Your task to perform on an android device: Do I have any events today? Image 0: 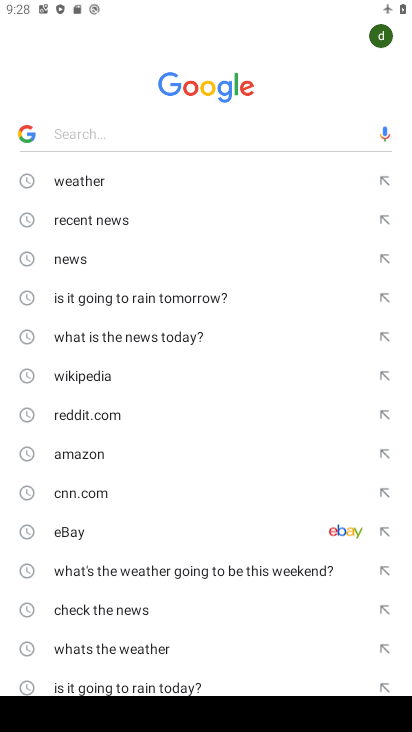
Step 0: press back button
Your task to perform on an android device: Do I have any events today? Image 1: 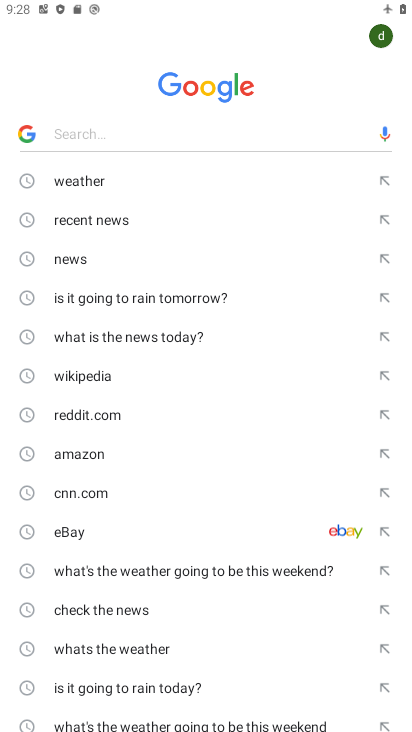
Step 1: press home button
Your task to perform on an android device: Do I have any events today? Image 2: 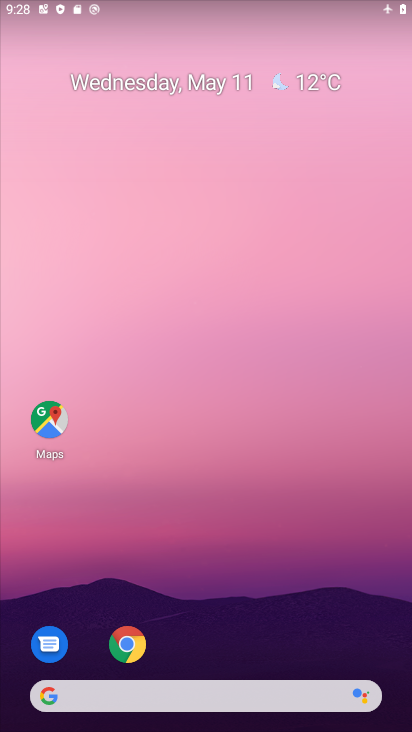
Step 2: click (224, 175)
Your task to perform on an android device: Do I have any events today? Image 3: 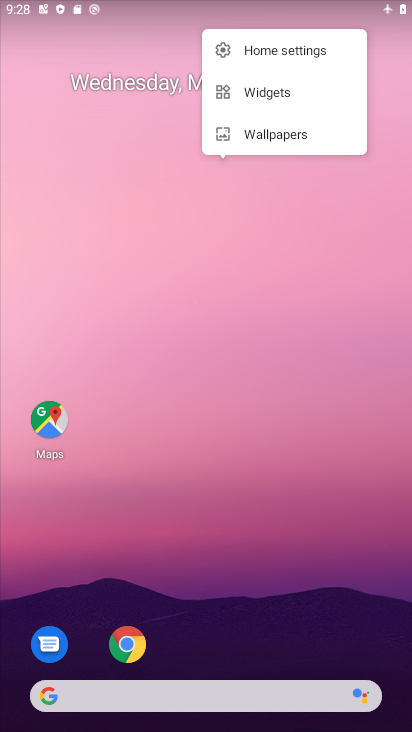
Step 3: drag from (228, 638) to (135, 181)
Your task to perform on an android device: Do I have any events today? Image 4: 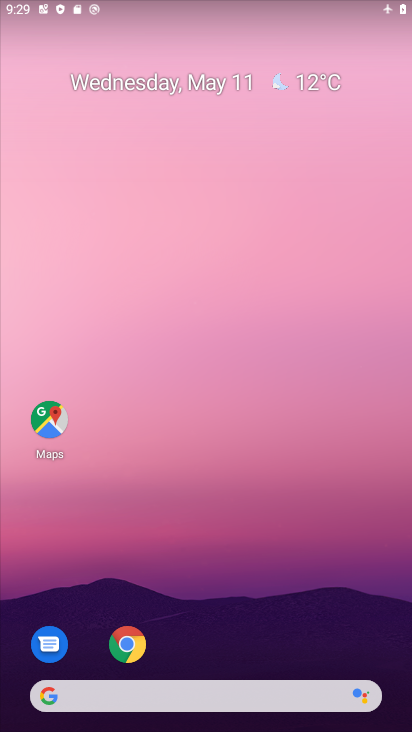
Step 4: drag from (190, 634) to (135, 191)
Your task to perform on an android device: Do I have any events today? Image 5: 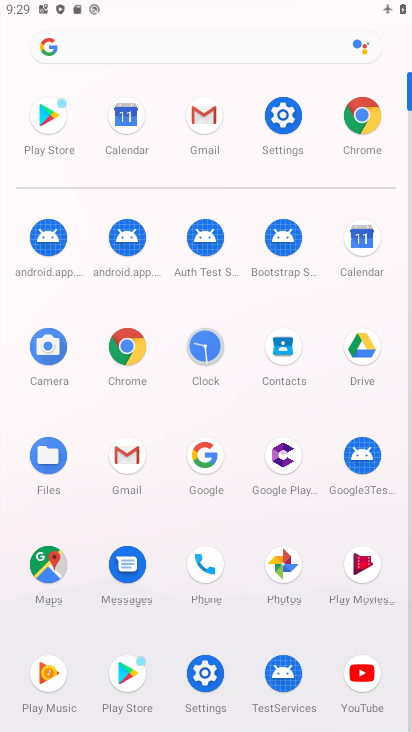
Step 5: click (129, 134)
Your task to perform on an android device: Do I have any events today? Image 6: 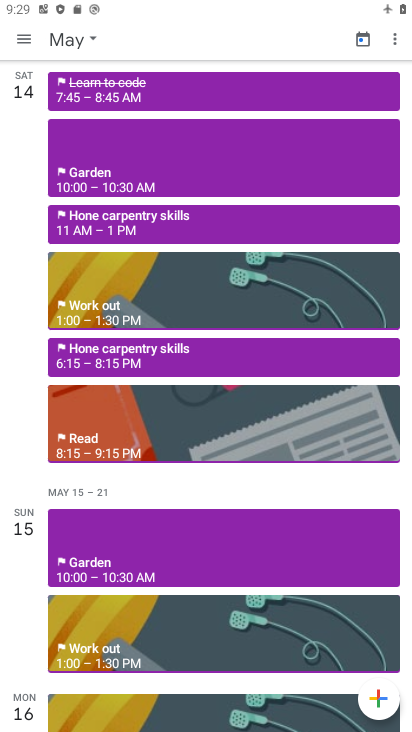
Step 6: task complete